Your task to perform on an android device: find photos in the google photos app Image 0: 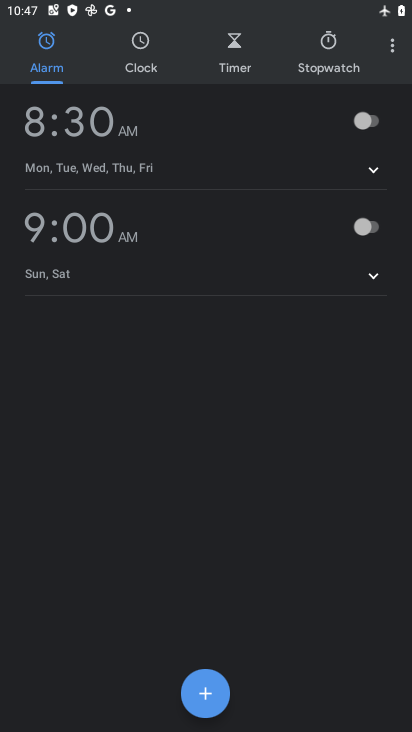
Step 0: press home button
Your task to perform on an android device: find photos in the google photos app Image 1: 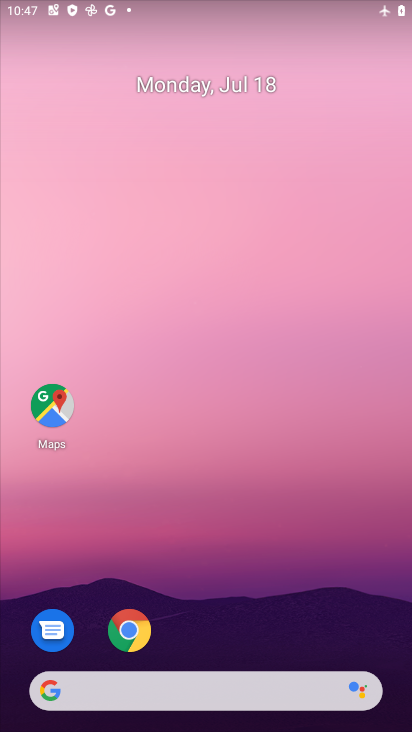
Step 1: drag from (298, 660) to (181, 12)
Your task to perform on an android device: find photos in the google photos app Image 2: 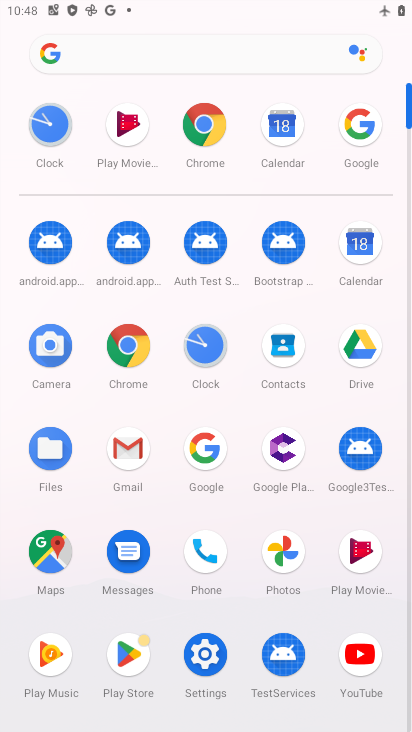
Step 2: click (278, 551)
Your task to perform on an android device: find photos in the google photos app Image 3: 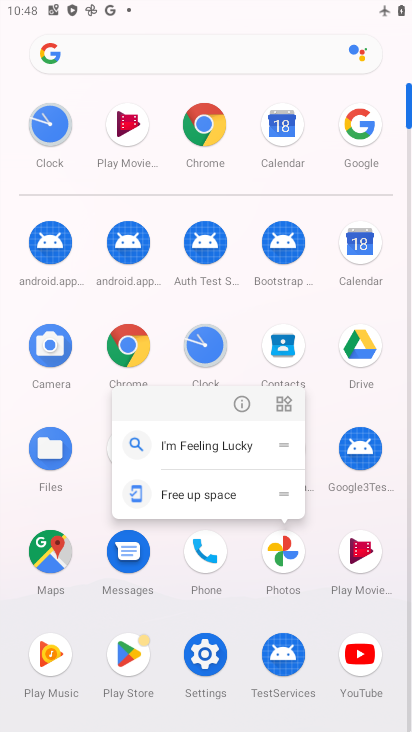
Step 3: click (280, 550)
Your task to perform on an android device: find photos in the google photos app Image 4: 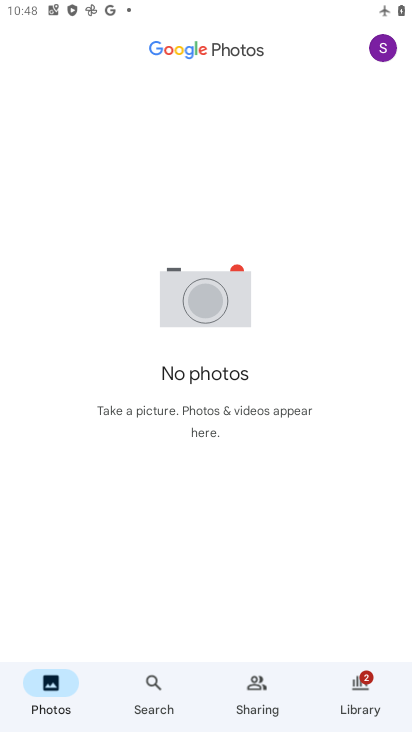
Step 4: task complete